Your task to perform on an android device: star an email in the gmail app Image 0: 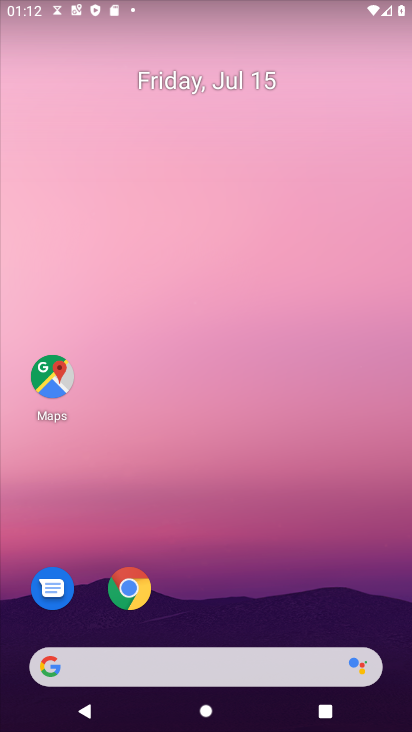
Step 0: drag from (219, 621) to (309, 9)
Your task to perform on an android device: star an email in the gmail app Image 1: 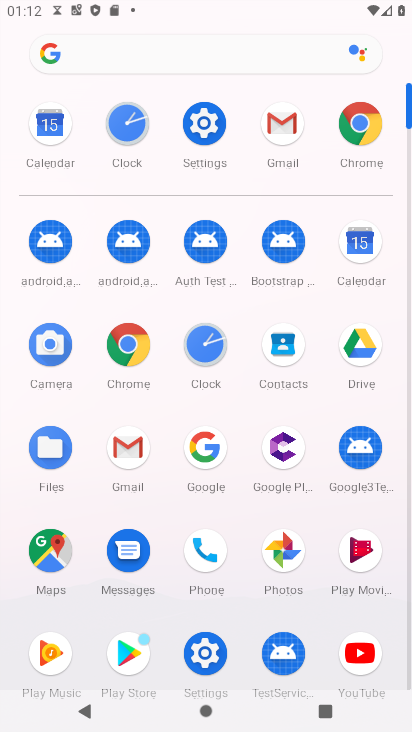
Step 1: click (270, 122)
Your task to perform on an android device: star an email in the gmail app Image 2: 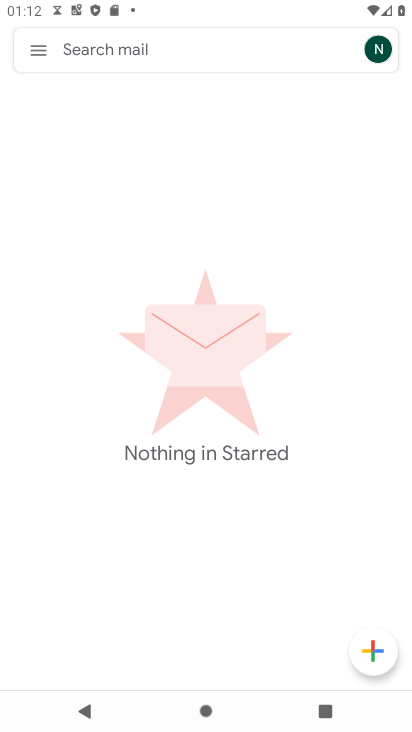
Step 2: click (40, 41)
Your task to perform on an android device: star an email in the gmail app Image 3: 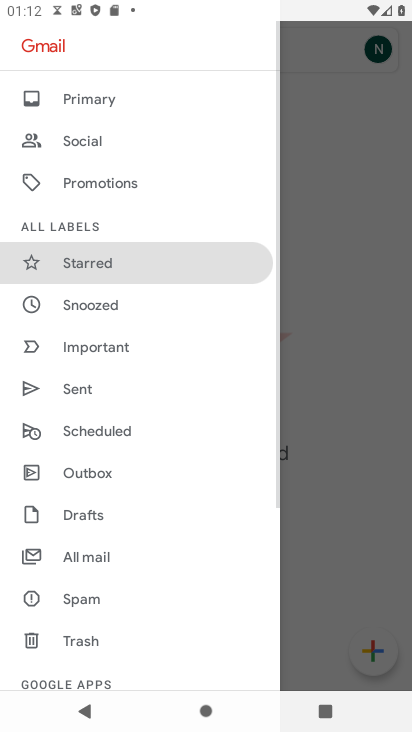
Step 3: click (99, 557)
Your task to perform on an android device: star an email in the gmail app Image 4: 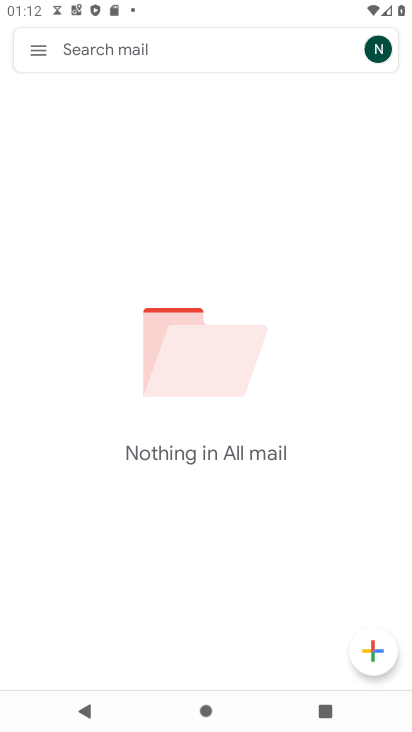
Step 4: task complete